Your task to perform on an android device: turn on wifi Image 0: 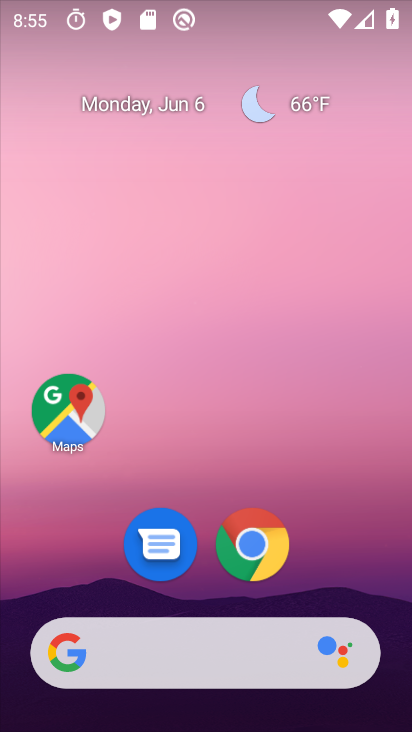
Step 0: drag from (383, 582) to (296, 67)
Your task to perform on an android device: turn on wifi Image 1: 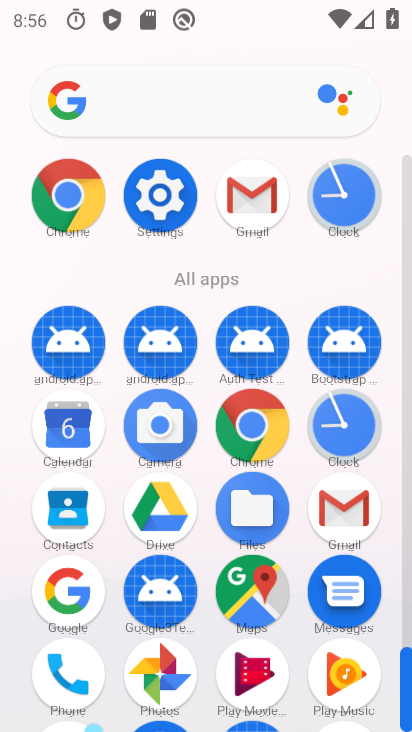
Step 1: click (184, 189)
Your task to perform on an android device: turn on wifi Image 2: 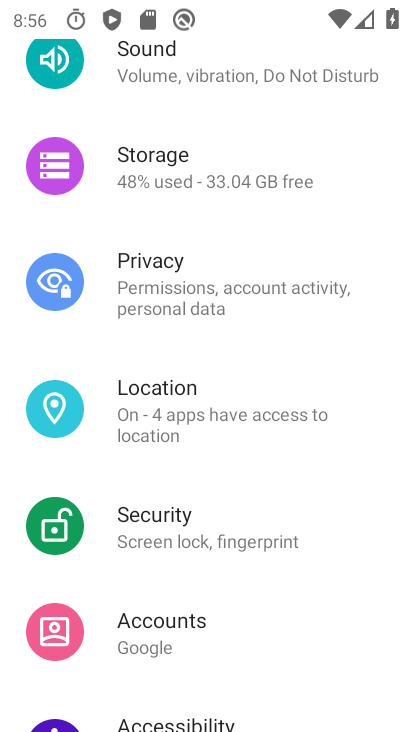
Step 2: drag from (210, 130) to (257, 614)
Your task to perform on an android device: turn on wifi Image 3: 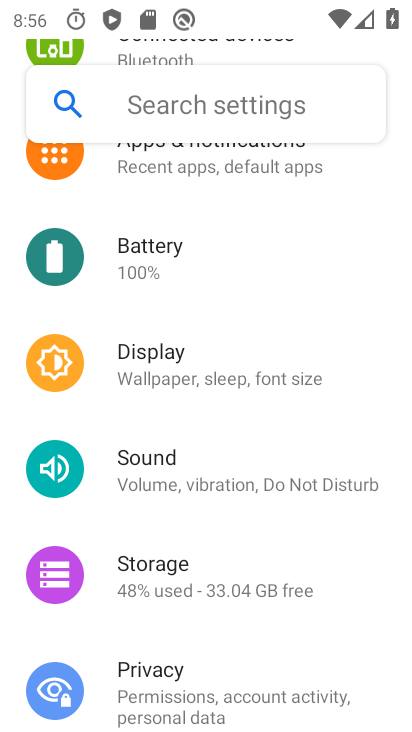
Step 3: drag from (209, 287) to (213, 719)
Your task to perform on an android device: turn on wifi Image 4: 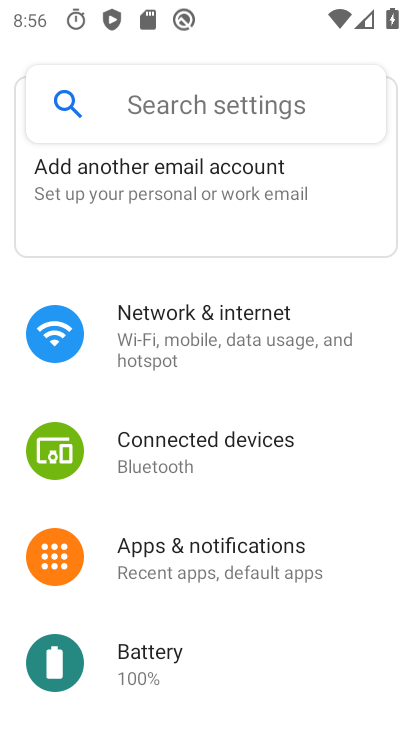
Step 4: click (192, 347)
Your task to perform on an android device: turn on wifi Image 5: 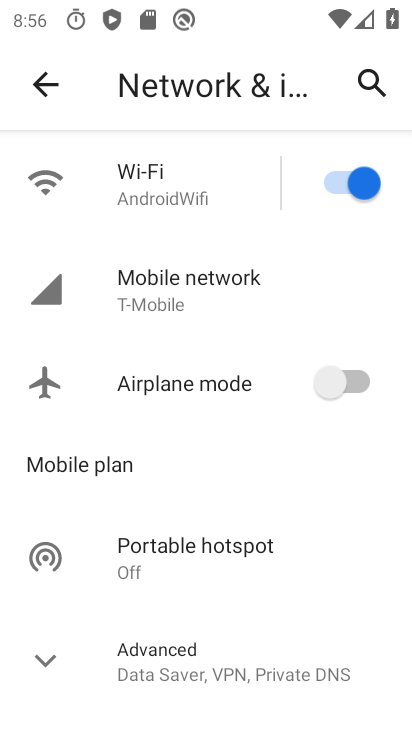
Step 5: task complete